Your task to perform on an android device: Show me popular videos on Youtube Image 0: 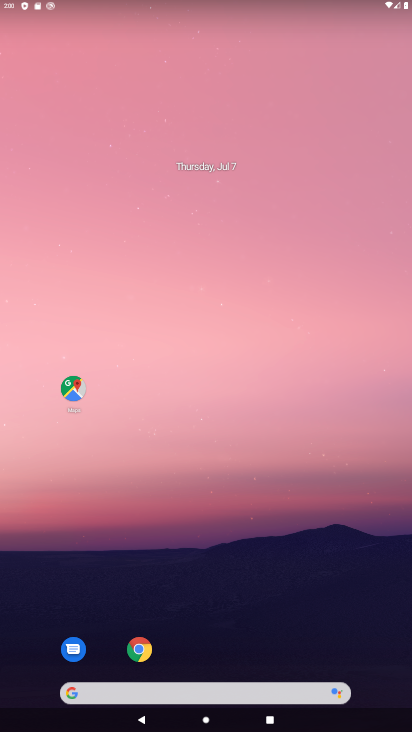
Step 0: drag from (254, 400) to (306, 140)
Your task to perform on an android device: Show me popular videos on Youtube Image 1: 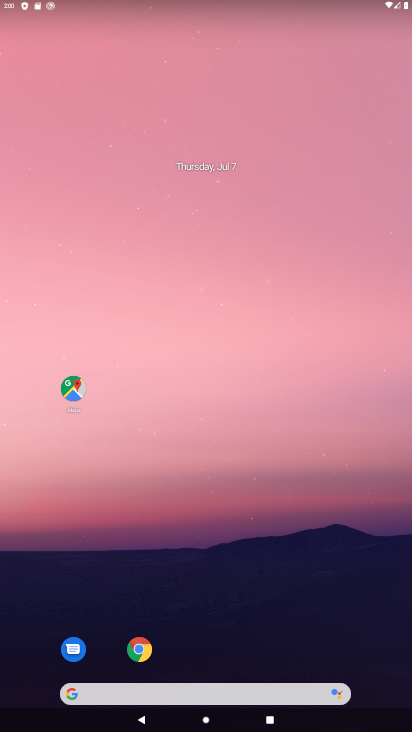
Step 1: drag from (261, 679) to (267, 90)
Your task to perform on an android device: Show me popular videos on Youtube Image 2: 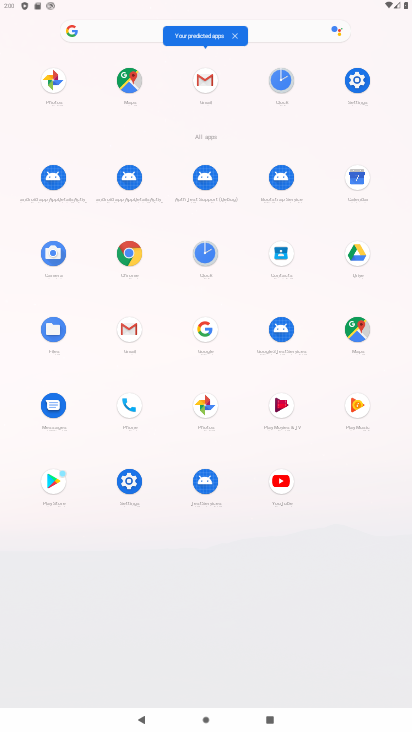
Step 2: click (271, 487)
Your task to perform on an android device: Show me popular videos on Youtube Image 3: 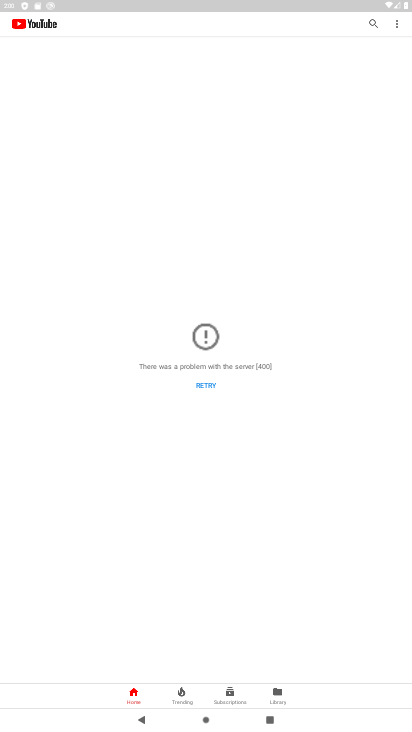
Step 3: task complete